Your task to perform on an android device: change keyboard looks Image 0: 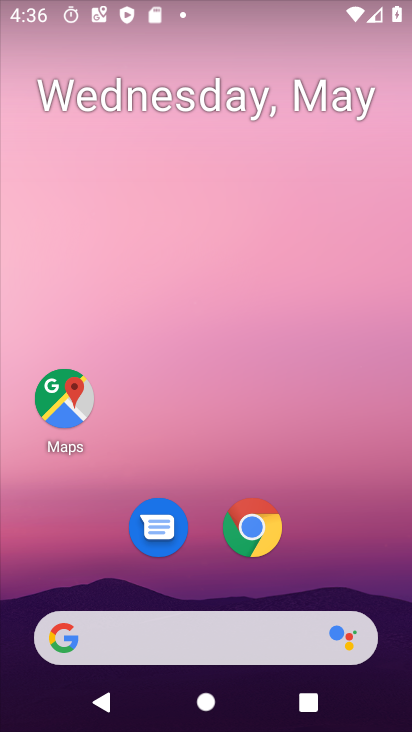
Step 0: drag from (291, 564) to (339, 55)
Your task to perform on an android device: change keyboard looks Image 1: 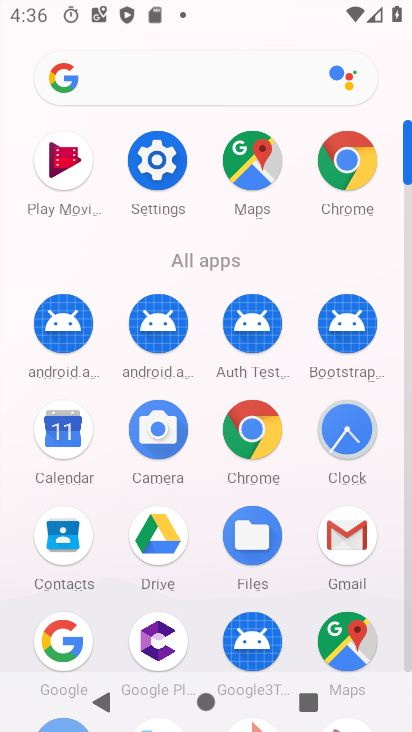
Step 1: click (164, 164)
Your task to perform on an android device: change keyboard looks Image 2: 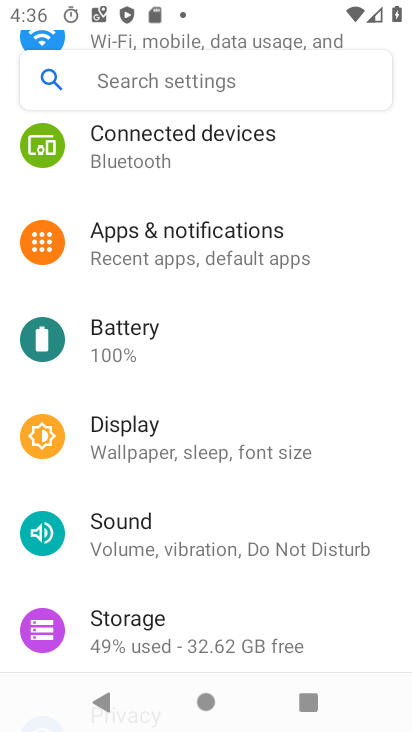
Step 2: drag from (254, 631) to (330, 190)
Your task to perform on an android device: change keyboard looks Image 3: 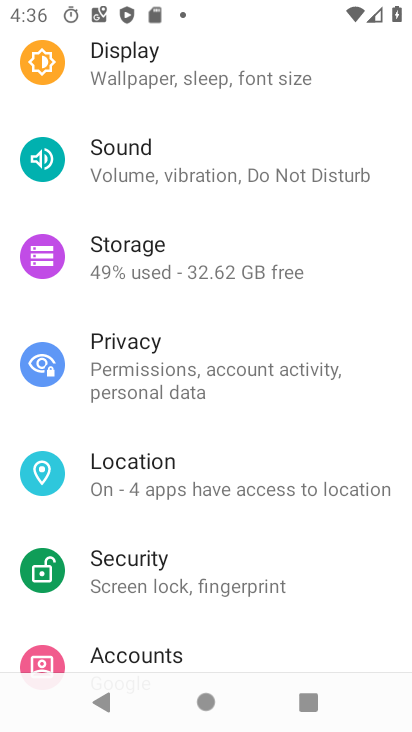
Step 3: drag from (308, 608) to (319, 189)
Your task to perform on an android device: change keyboard looks Image 4: 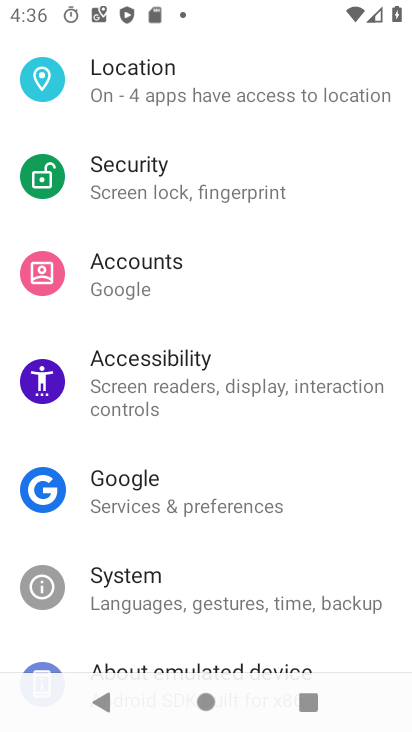
Step 4: click (140, 587)
Your task to perform on an android device: change keyboard looks Image 5: 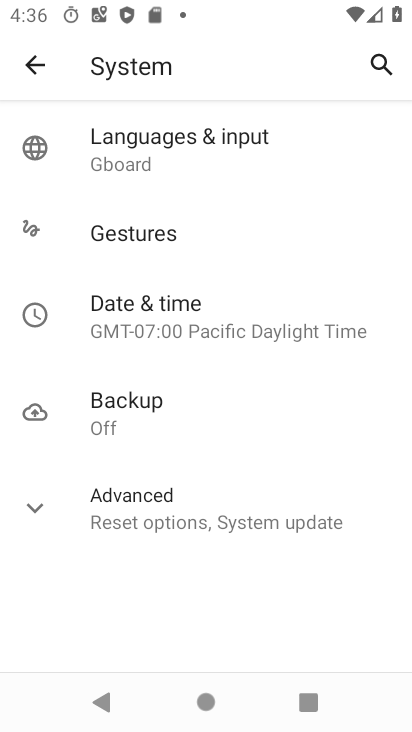
Step 5: click (109, 154)
Your task to perform on an android device: change keyboard looks Image 6: 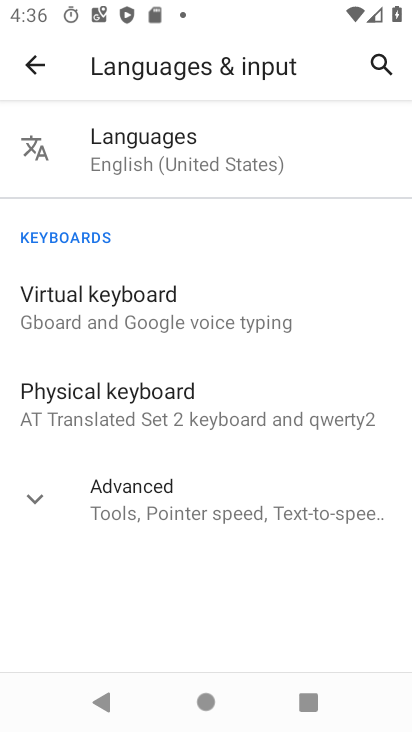
Step 6: click (115, 311)
Your task to perform on an android device: change keyboard looks Image 7: 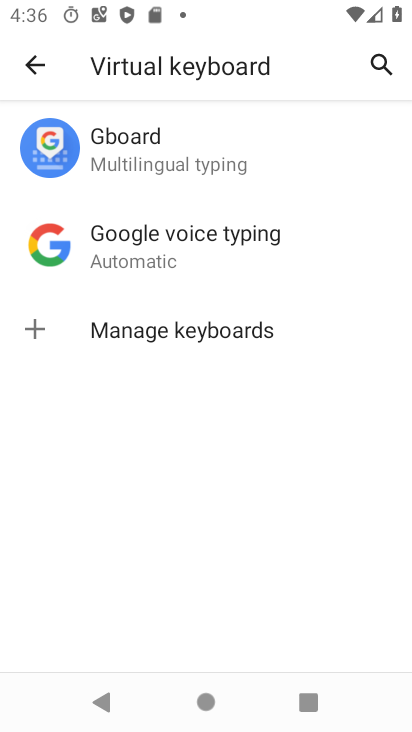
Step 7: click (141, 160)
Your task to perform on an android device: change keyboard looks Image 8: 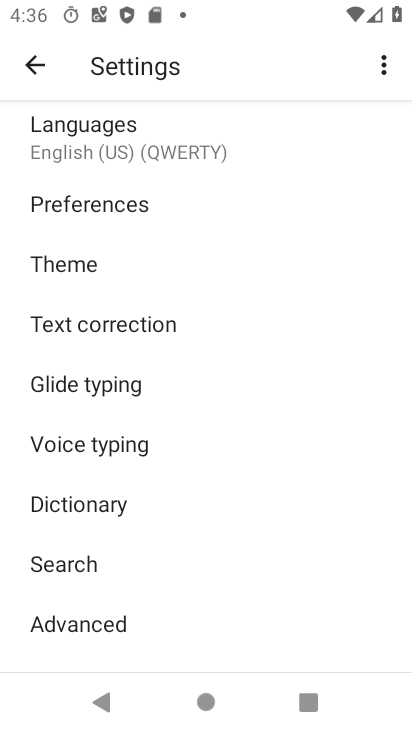
Step 8: click (65, 265)
Your task to perform on an android device: change keyboard looks Image 9: 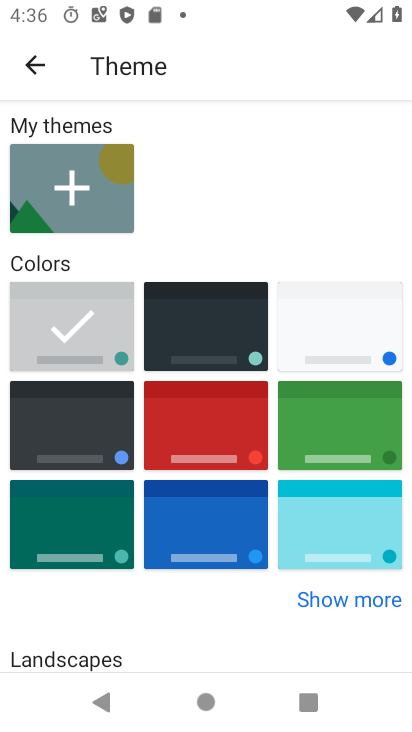
Step 9: click (235, 325)
Your task to perform on an android device: change keyboard looks Image 10: 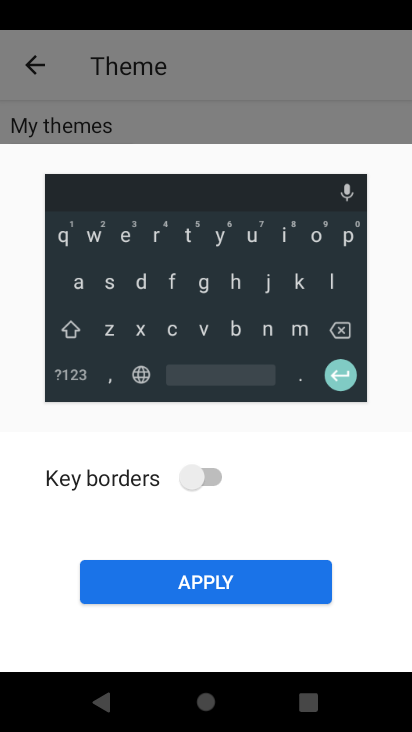
Step 10: click (207, 480)
Your task to perform on an android device: change keyboard looks Image 11: 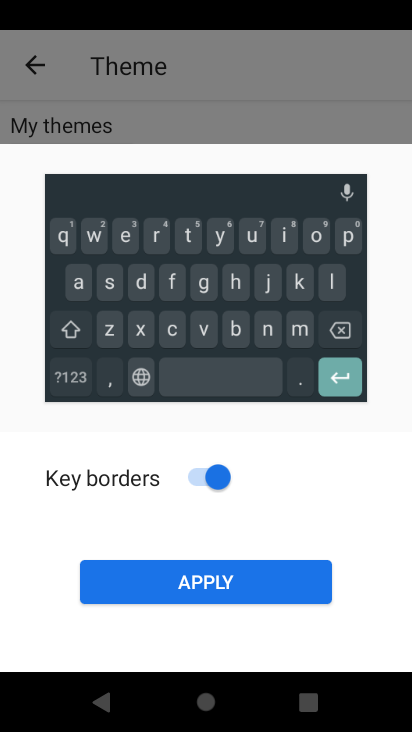
Step 11: click (234, 579)
Your task to perform on an android device: change keyboard looks Image 12: 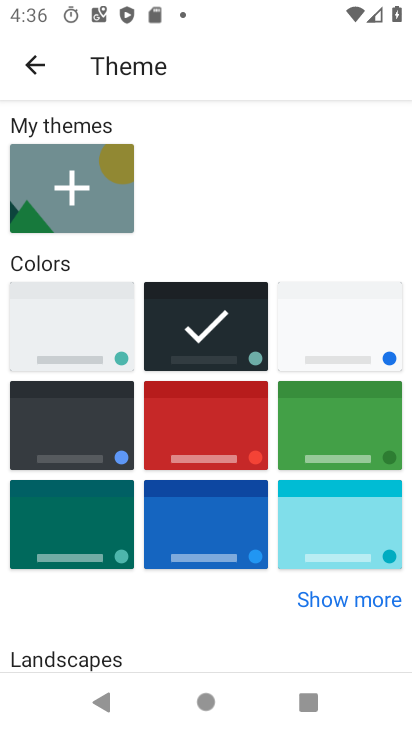
Step 12: task complete